Your task to perform on an android device: Search for Italian restaurants on Maps Image 0: 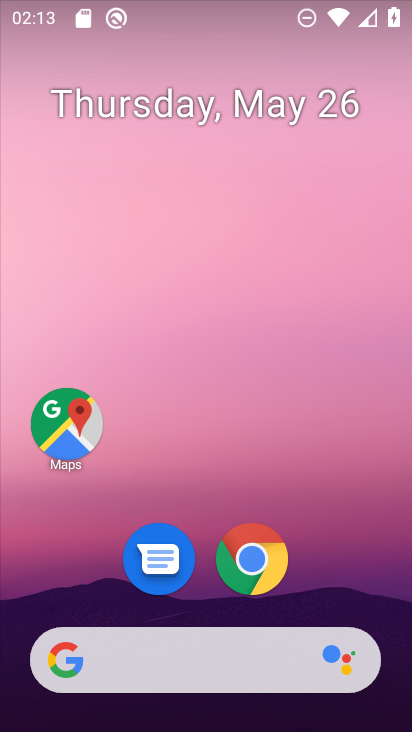
Step 0: drag from (238, 667) to (333, 109)
Your task to perform on an android device: Search for Italian restaurants on Maps Image 1: 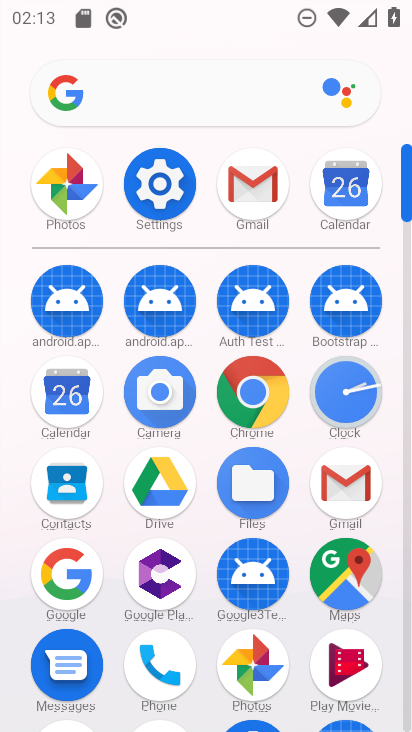
Step 1: click (356, 571)
Your task to perform on an android device: Search for Italian restaurants on Maps Image 2: 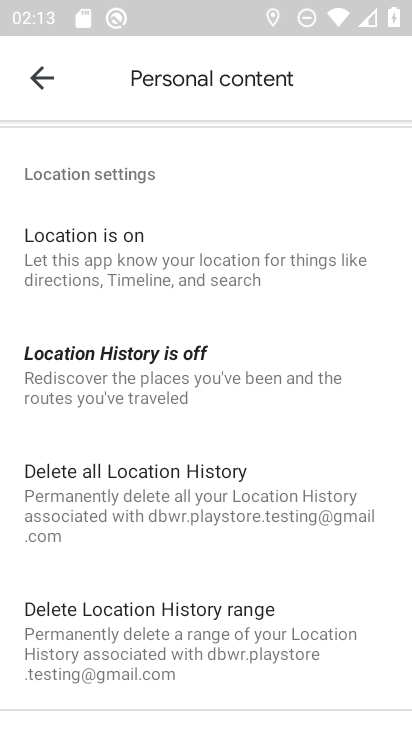
Step 2: click (45, 68)
Your task to perform on an android device: Search for Italian restaurants on Maps Image 3: 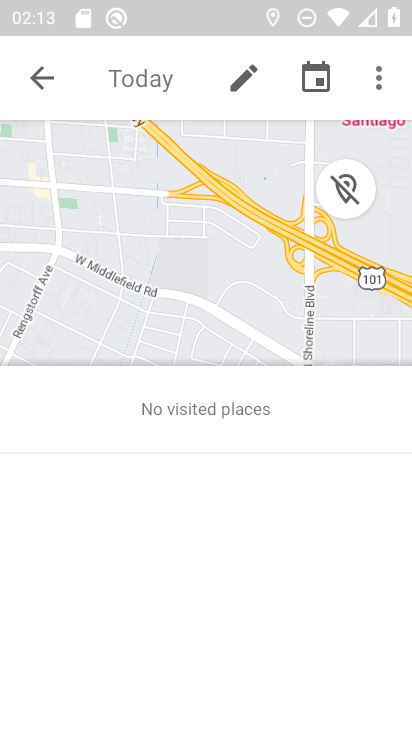
Step 3: click (45, 67)
Your task to perform on an android device: Search for Italian restaurants on Maps Image 4: 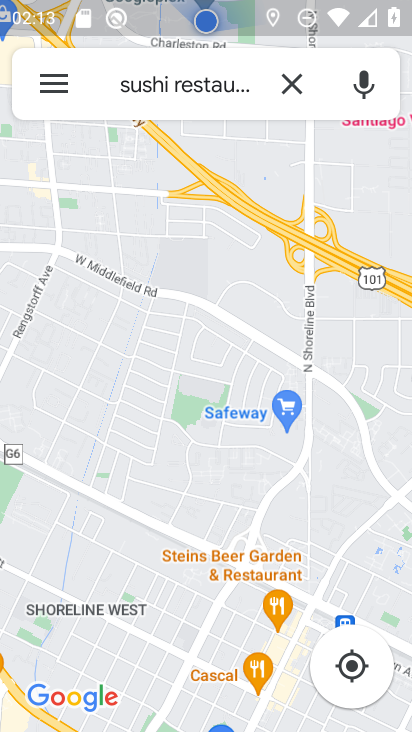
Step 4: click (288, 76)
Your task to perform on an android device: Search for Italian restaurants on Maps Image 5: 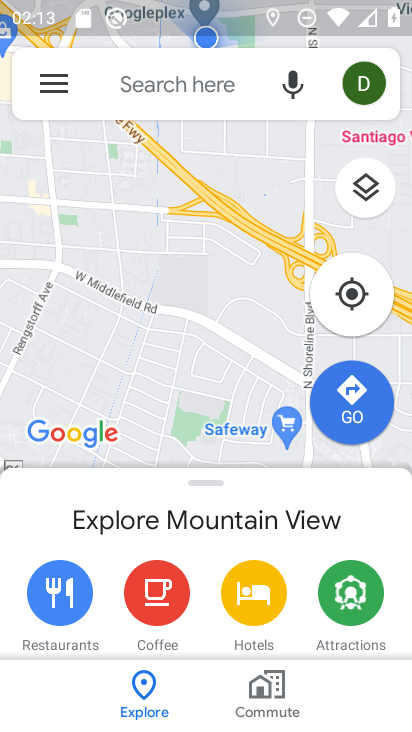
Step 5: click (159, 84)
Your task to perform on an android device: Search for Italian restaurants on Maps Image 6: 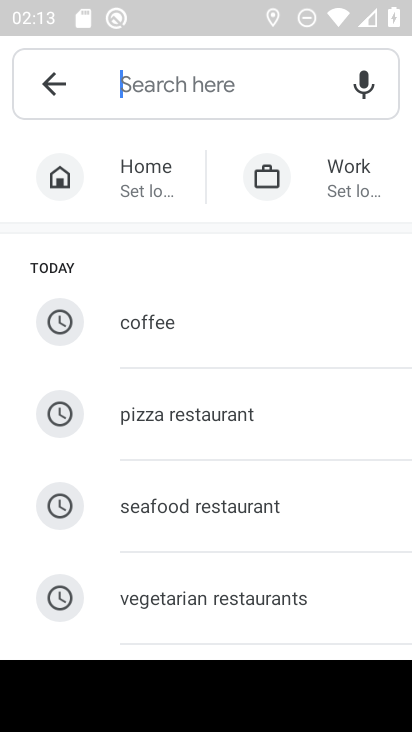
Step 6: drag from (241, 576) to (266, 539)
Your task to perform on an android device: Search for Italian restaurants on Maps Image 7: 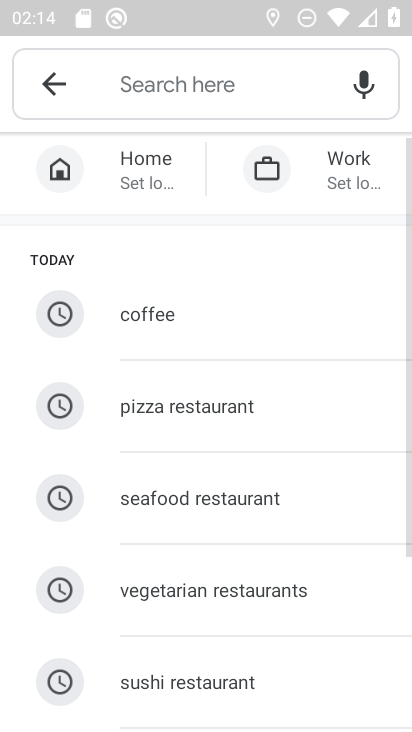
Step 7: click (142, 88)
Your task to perform on an android device: Search for Italian restaurants on Maps Image 8: 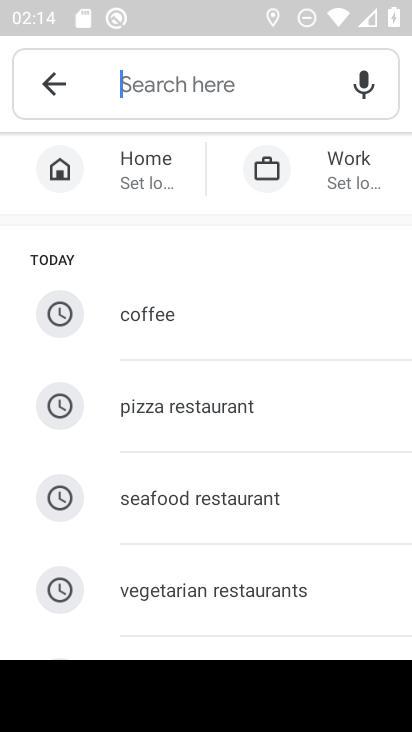
Step 8: type "italian"
Your task to perform on an android device: Search for Italian restaurants on Maps Image 9: 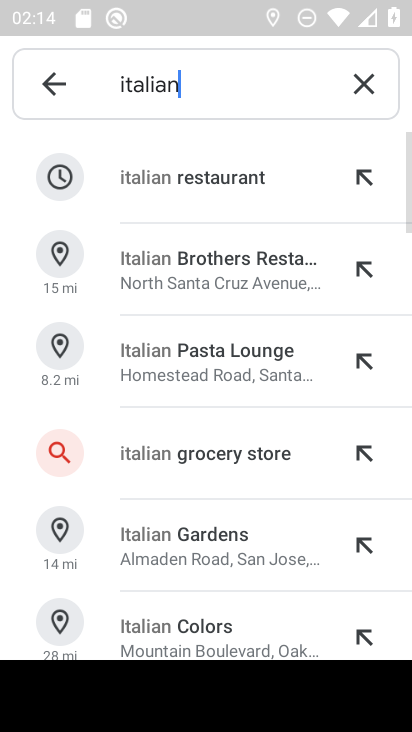
Step 9: click (196, 174)
Your task to perform on an android device: Search for Italian restaurants on Maps Image 10: 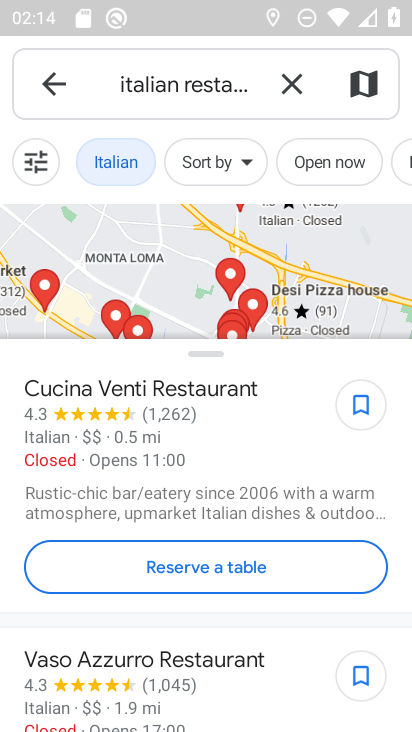
Step 10: task complete